Your task to perform on an android device: toggle translation in the chrome app Image 0: 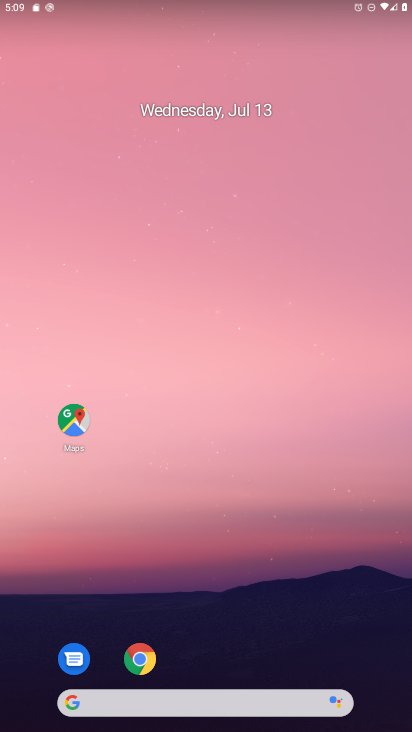
Step 0: press home button
Your task to perform on an android device: toggle translation in the chrome app Image 1: 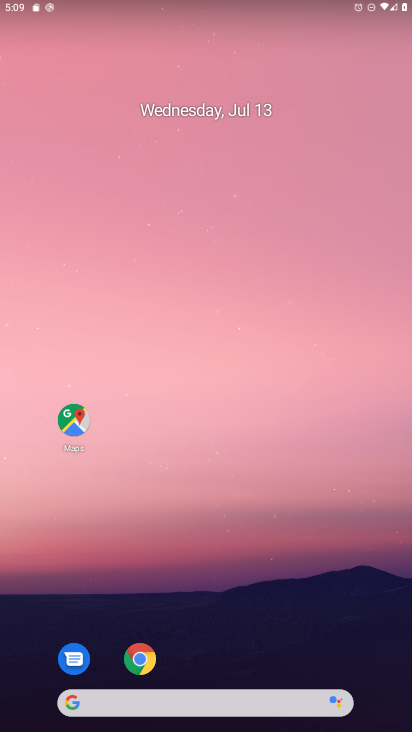
Step 1: drag from (268, 450) to (293, 114)
Your task to perform on an android device: toggle translation in the chrome app Image 2: 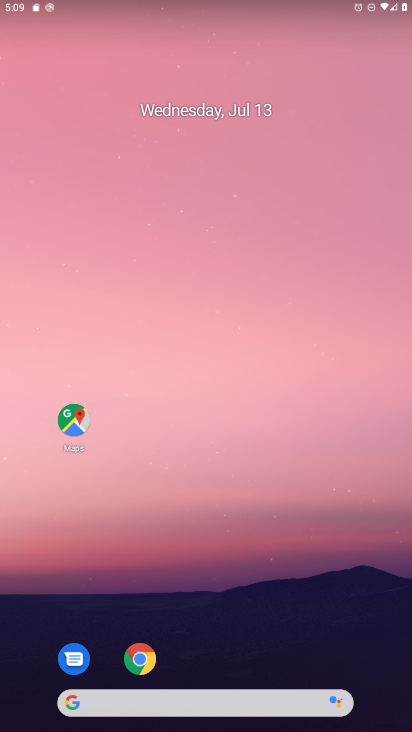
Step 2: drag from (285, 550) to (330, 88)
Your task to perform on an android device: toggle translation in the chrome app Image 3: 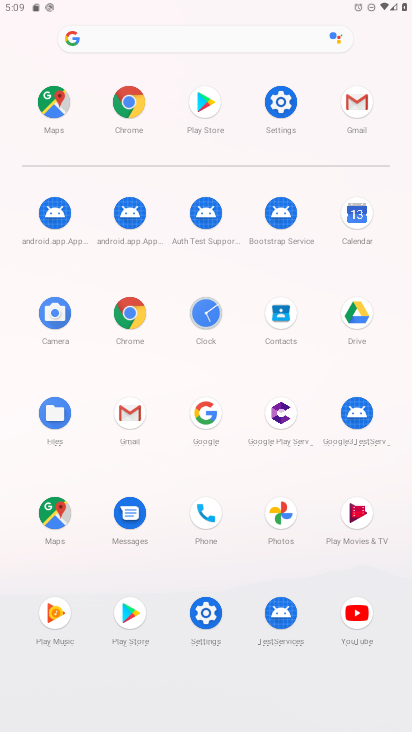
Step 3: click (130, 308)
Your task to perform on an android device: toggle translation in the chrome app Image 4: 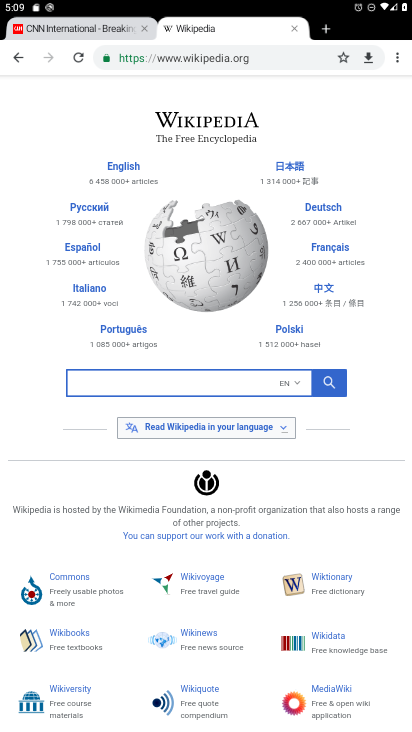
Step 4: click (395, 48)
Your task to perform on an android device: toggle translation in the chrome app Image 5: 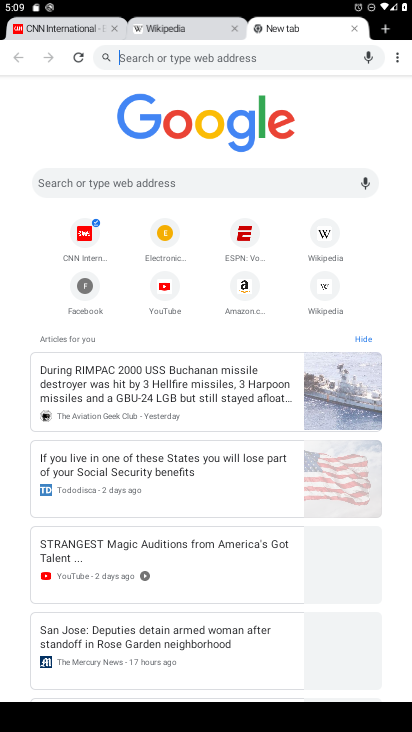
Step 5: drag from (398, 61) to (363, 29)
Your task to perform on an android device: toggle translation in the chrome app Image 6: 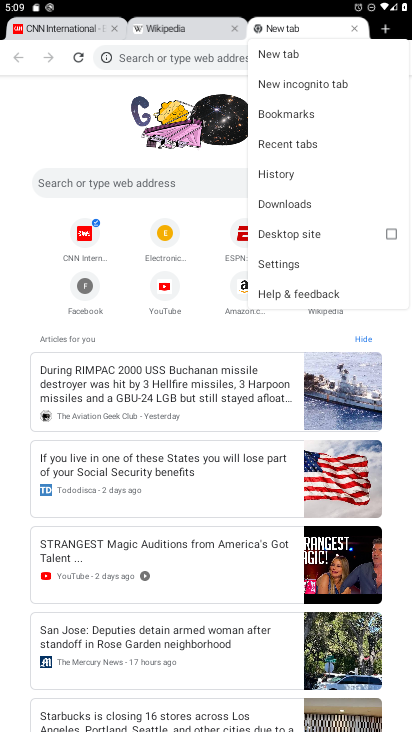
Step 6: click (359, 30)
Your task to perform on an android device: toggle translation in the chrome app Image 7: 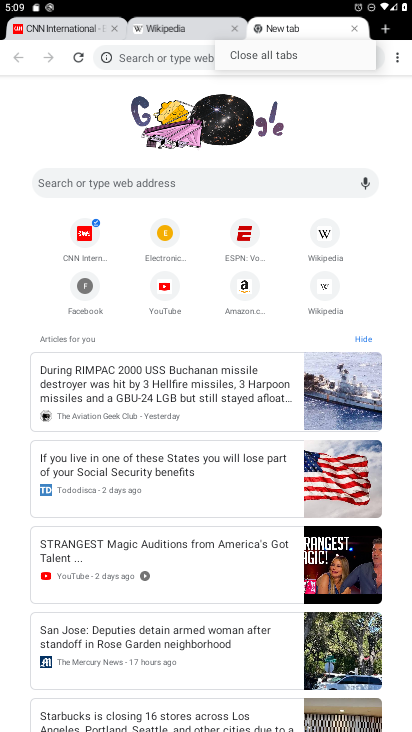
Step 7: click (358, 29)
Your task to perform on an android device: toggle translation in the chrome app Image 8: 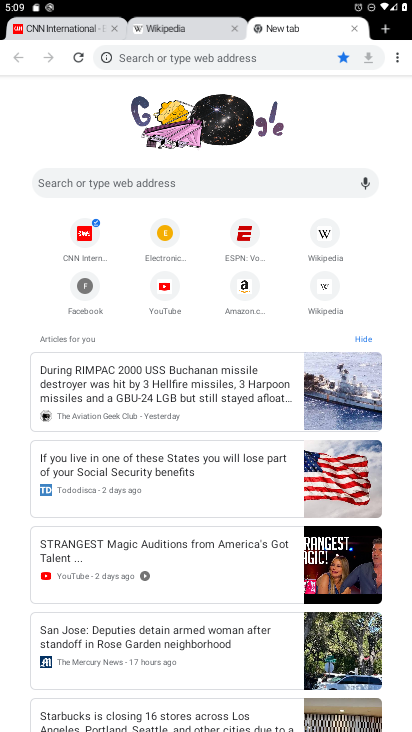
Step 8: click (352, 26)
Your task to perform on an android device: toggle translation in the chrome app Image 9: 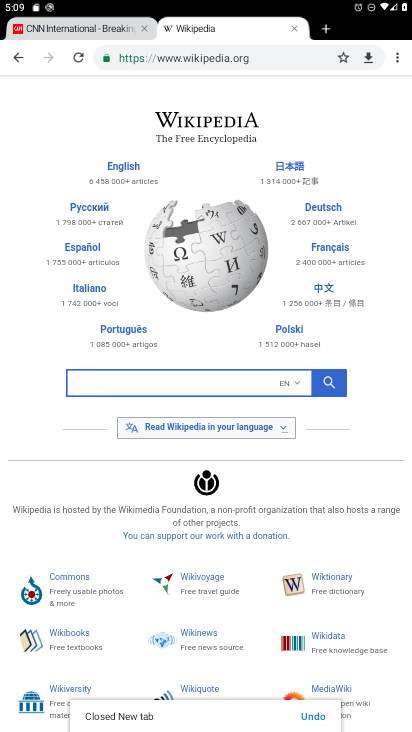
Step 9: click (356, 29)
Your task to perform on an android device: toggle translation in the chrome app Image 10: 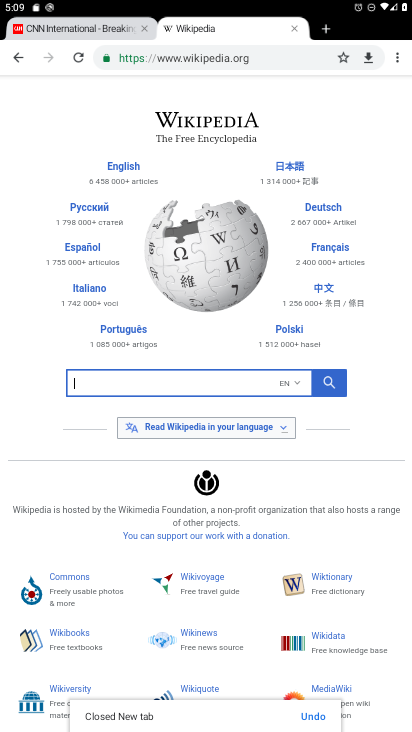
Step 10: click (299, 28)
Your task to perform on an android device: toggle translation in the chrome app Image 11: 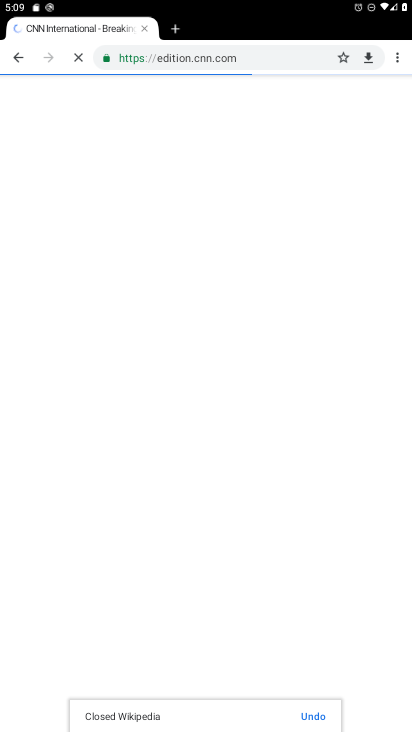
Step 11: drag from (392, 56) to (288, 344)
Your task to perform on an android device: toggle translation in the chrome app Image 12: 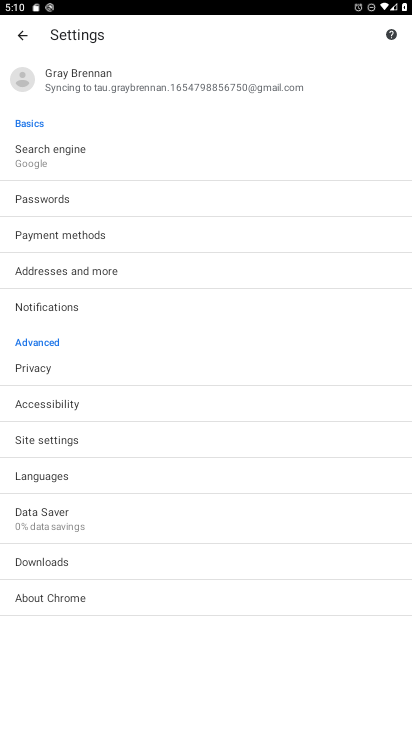
Step 12: click (60, 479)
Your task to perform on an android device: toggle translation in the chrome app Image 13: 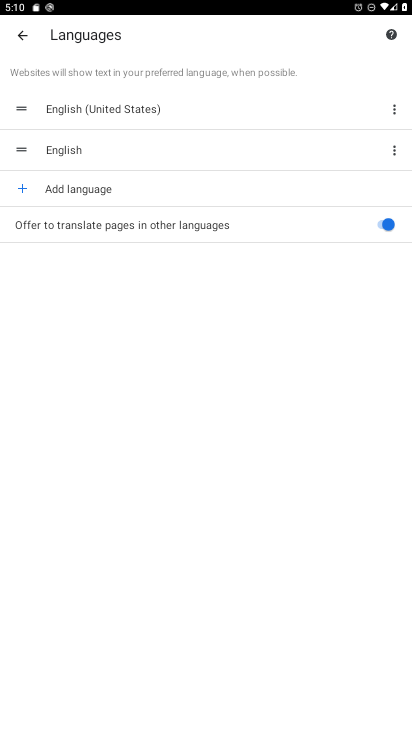
Step 13: click (383, 221)
Your task to perform on an android device: toggle translation in the chrome app Image 14: 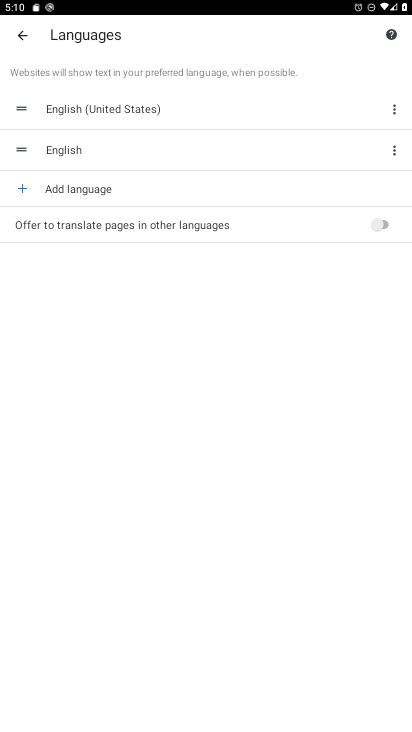
Step 14: task complete